Your task to perform on an android device: turn notification dots on Image 0: 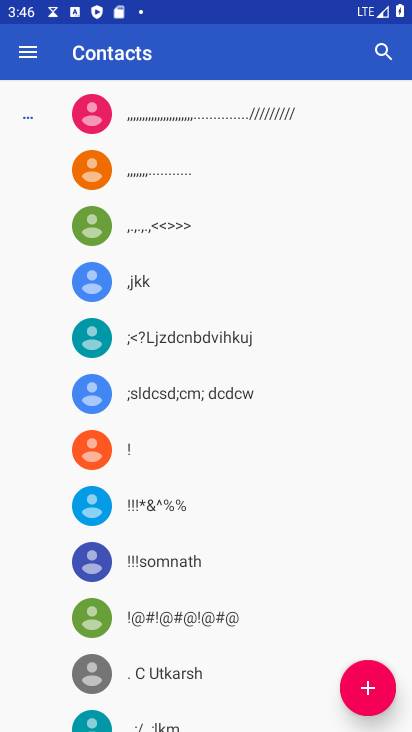
Step 0: press home button
Your task to perform on an android device: turn notification dots on Image 1: 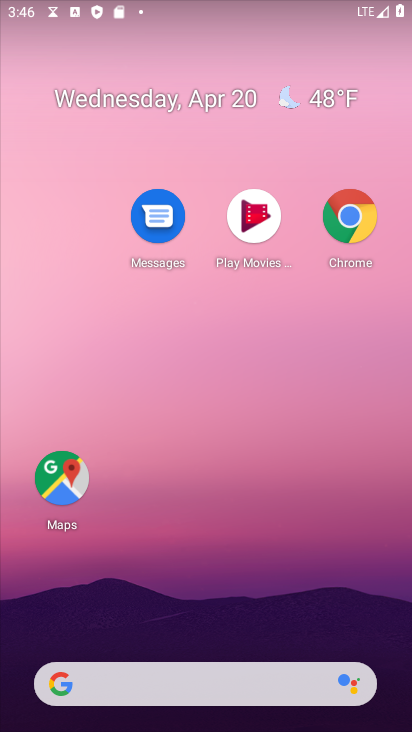
Step 1: click (66, 487)
Your task to perform on an android device: turn notification dots on Image 2: 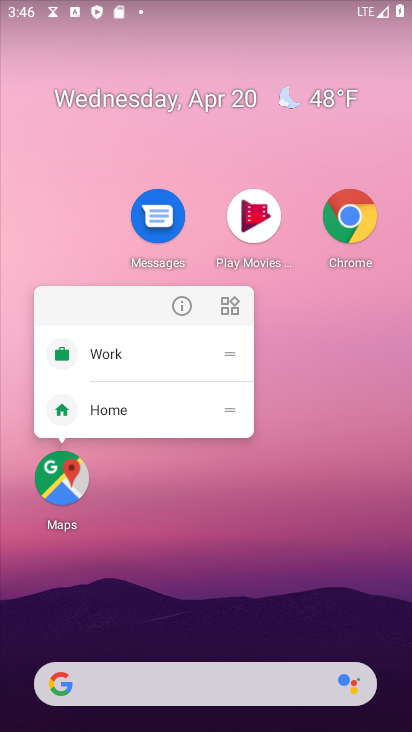
Step 2: click (174, 311)
Your task to perform on an android device: turn notification dots on Image 3: 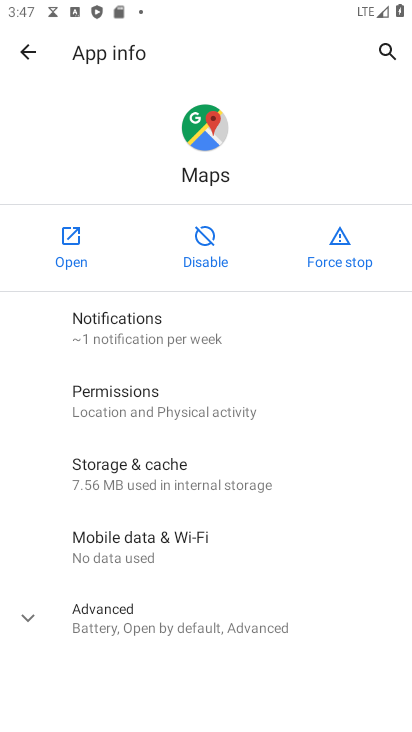
Step 3: press home button
Your task to perform on an android device: turn notification dots on Image 4: 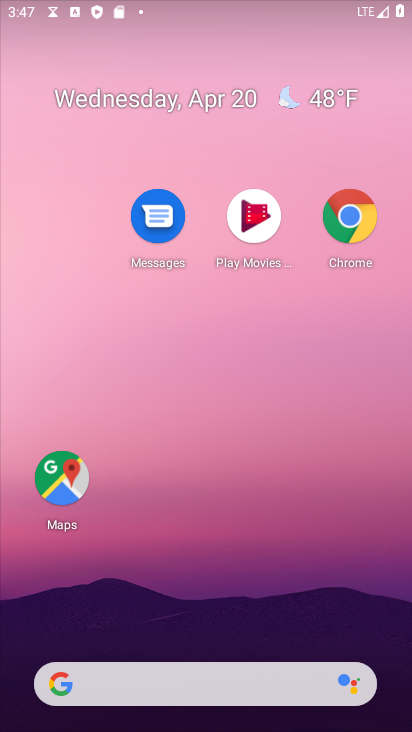
Step 4: drag from (233, 587) to (199, 141)
Your task to perform on an android device: turn notification dots on Image 5: 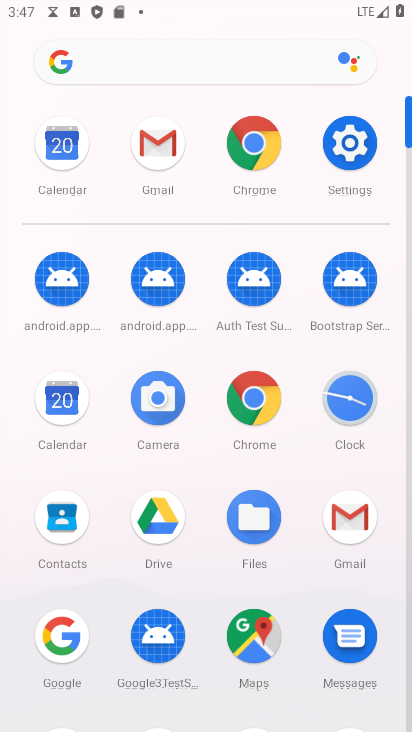
Step 5: click (347, 160)
Your task to perform on an android device: turn notification dots on Image 6: 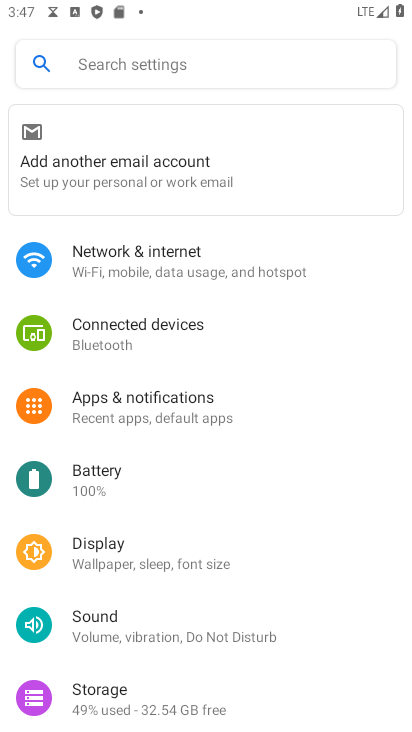
Step 6: click (193, 411)
Your task to perform on an android device: turn notification dots on Image 7: 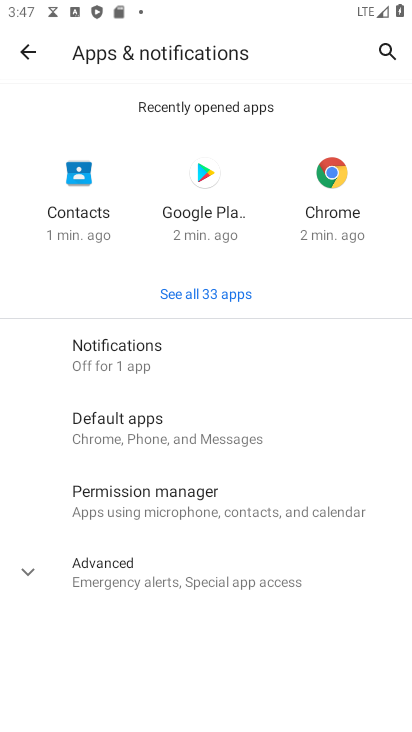
Step 7: click (184, 370)
Your task to perform on an android device: turn notification dots on Image 8: 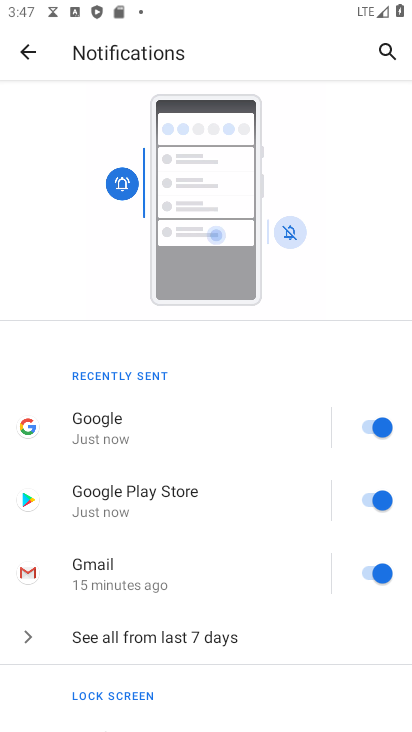
Step 8: drag from (259, 632) to (269, 247)
Your task to perform on an android device: turn notification dots on Image 9: 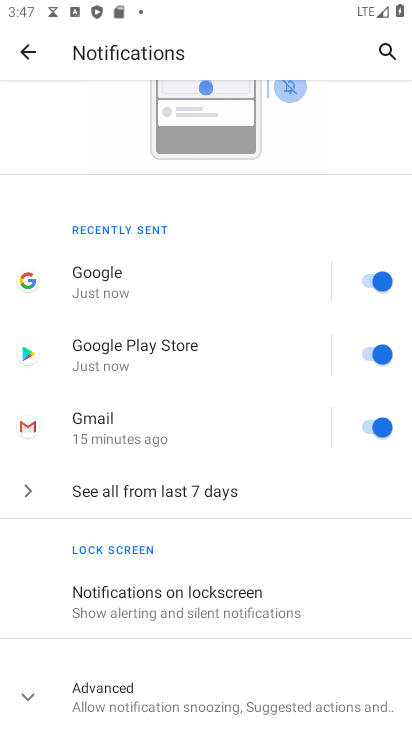
Step 9: drag from (233, 616) to (264, 373)
Your task to perform on an android device: turn notification dots on Image 10: 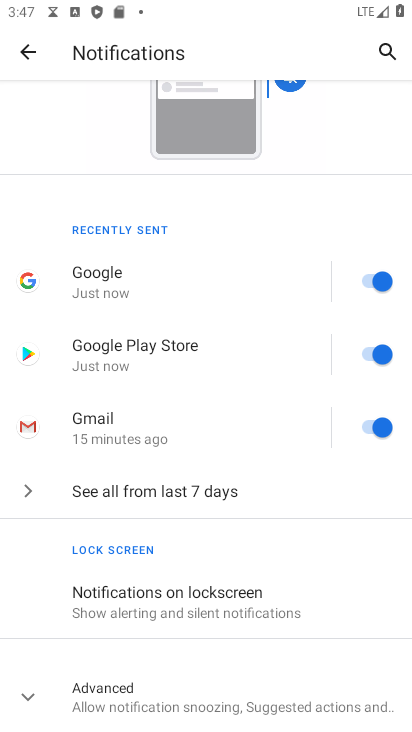
Step 10: click (158, 690)
Your task to perform on an android device: turn notification dots on Image 11: 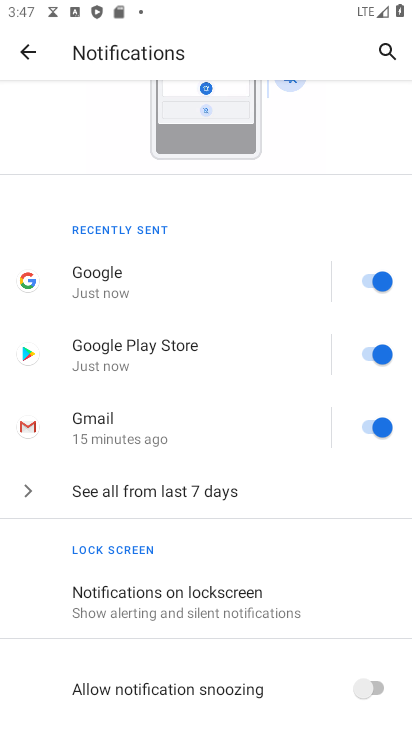
Step 11: drag from (221, 605) to (239, 294)
Your task to perform on an android device: turn notification dots on Image 12: 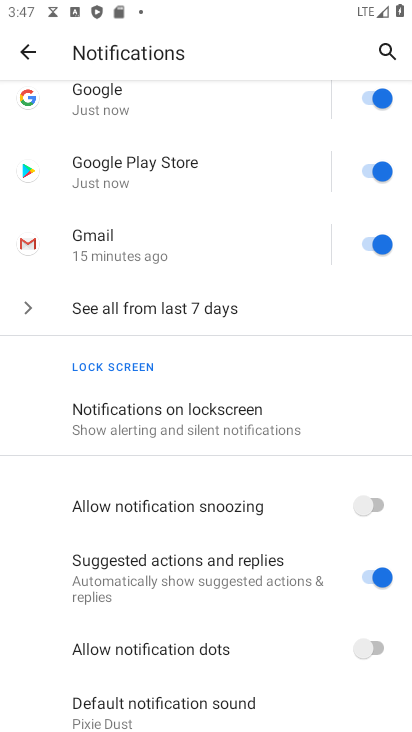
Step 12: click (376, 650)
Your task to perform on an android device: turn notification dots on Image 13: 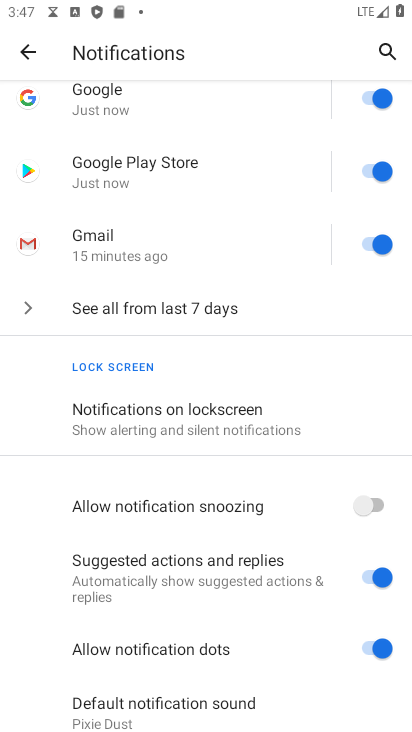
Step 13: task complete